Your task to perform on an android device: turn on sleep mode Image 0: 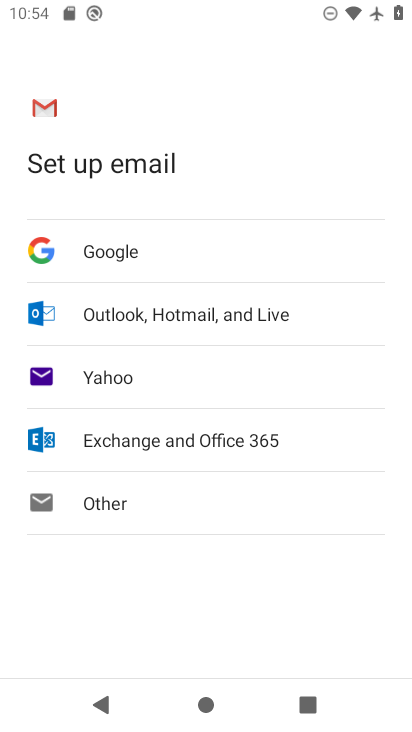
Step 0: press home button
Your task to perform on an android device: turn on sleep mode Image 1: 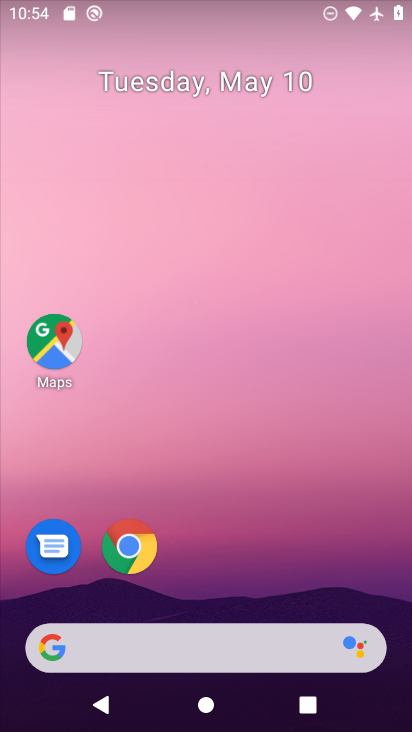
Step 1: drag from (252, 617) to (337, 65)
Your task to perform on an android device: turn on sleep mode Image 2: 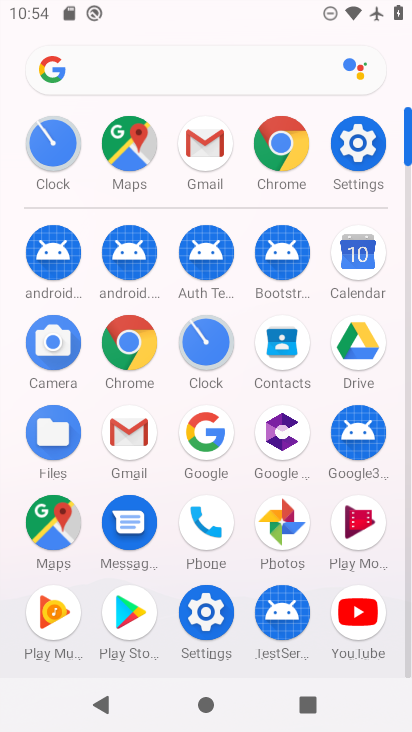
Step 2: click (361, 146)
Your task to perform on an android device: turn on sleep mode Image 3: 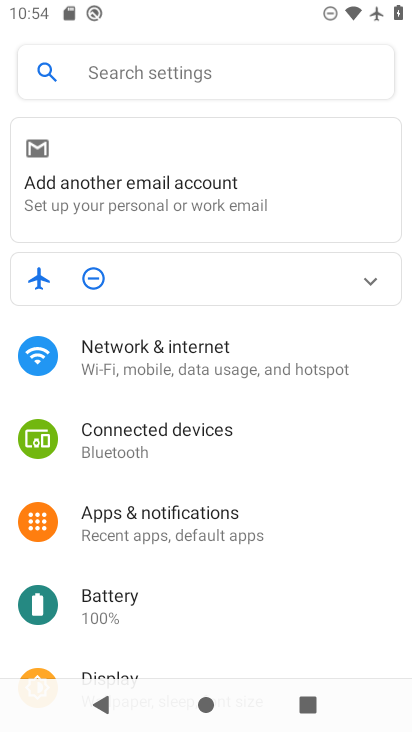
Step 3: drag from (163, 599) to (240, 223)
Your task to perform on an android device: turn on sleep mode Image 4: 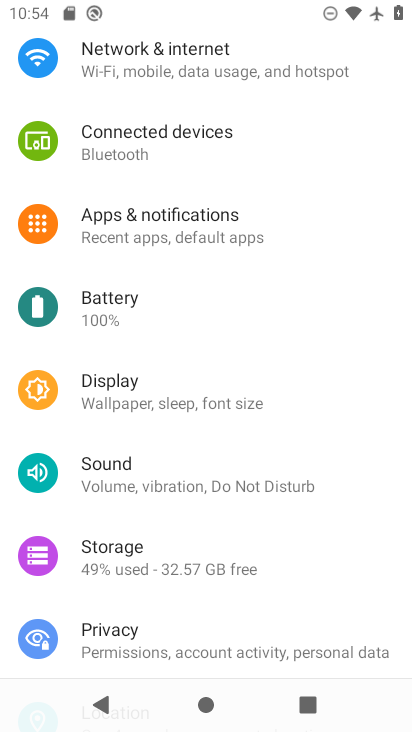
Step 4: click (132, 393)
Your task to perform on an android device: turn on sleep mode Image 5: 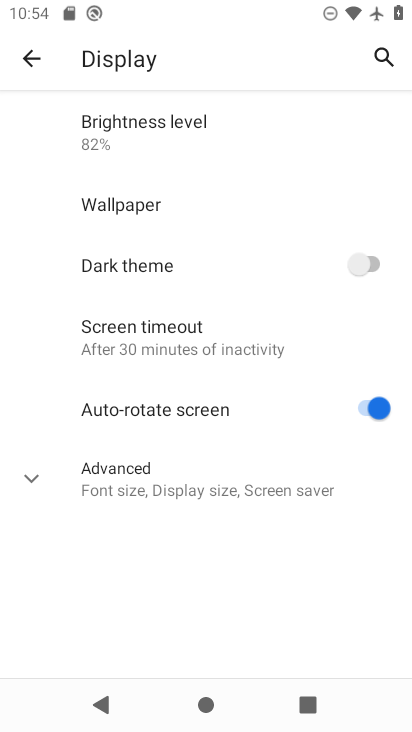
Step 5: click (154, 367)
Your task to perform on an android device: turn on sleep mode Image 6: 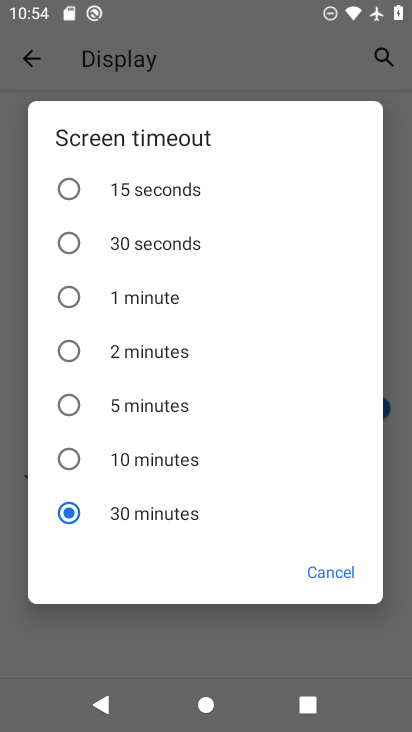
Step 6: task complete